Your task to perform on an android device: set default search engine in the chrome app Image 0: 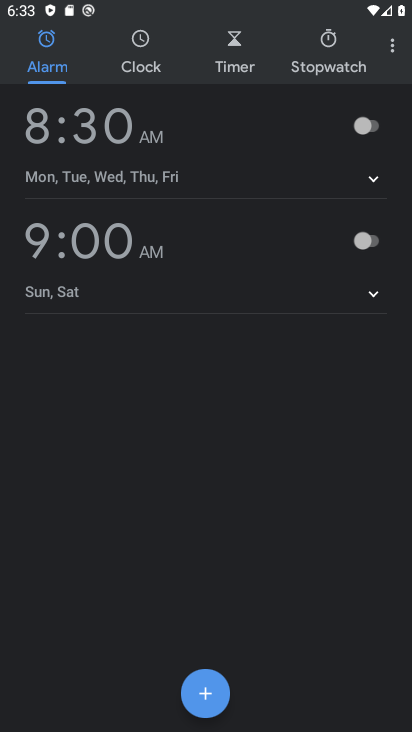
Step 0: press home button
Your task to perform on an android device: set default search engine in the chrome app Image 1: 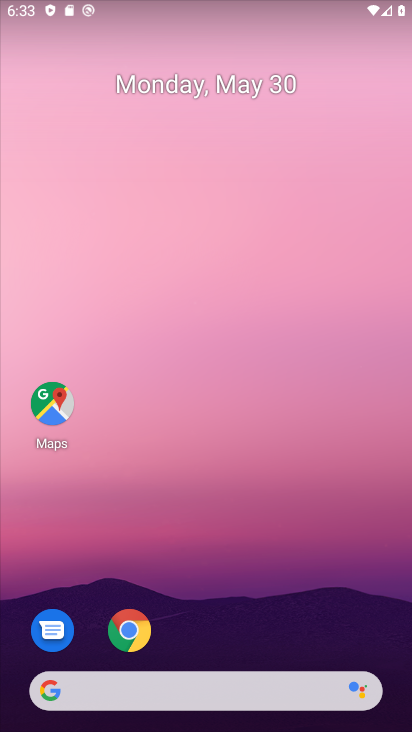
Step 1: drag from (397, 654) to (363, 31)
Your task to perform on an android device: set default search engine in the chrome app Image 2: 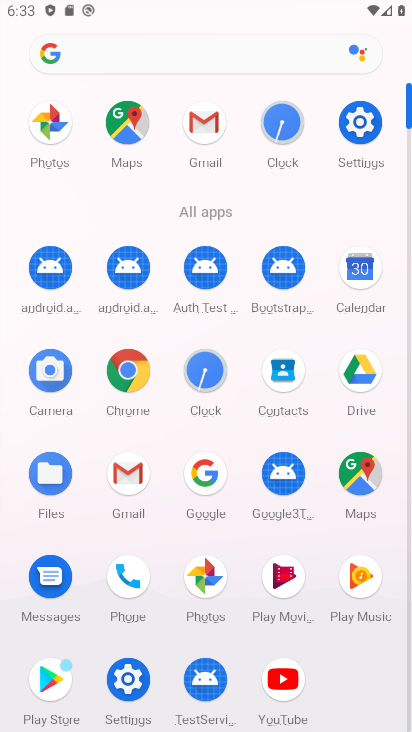
Step 2: click (138, 360)
Your task to perform on an android device: set default search engine in the chrome app Image 3: 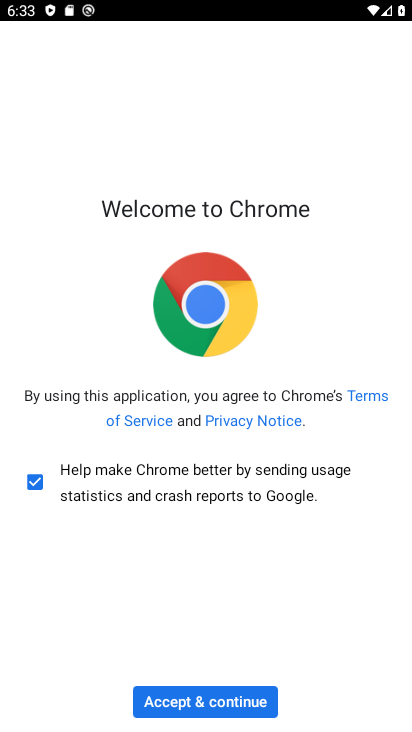
Step 3: click (220, 704)
Your task to perform on an android device: set default search engine in the chrome app Image 4: 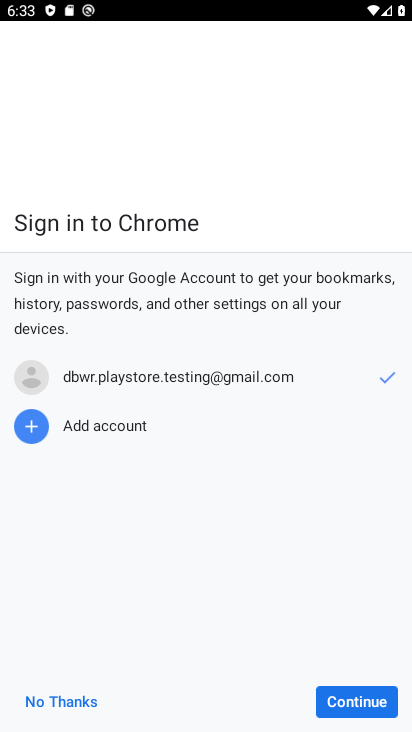
Step 4: click (328, 704)
Your task to perform on an android device: set default search engine in the chrome app Image 5: 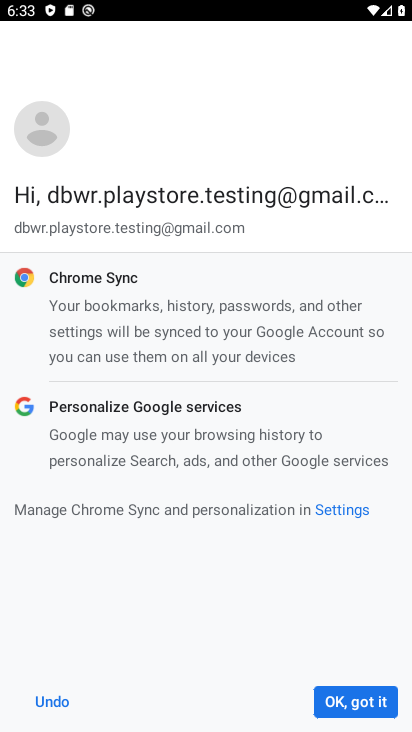
Step 5: click (328, 704)
Your task to perform on an android device: set default search engine in the chrome app Image 6: 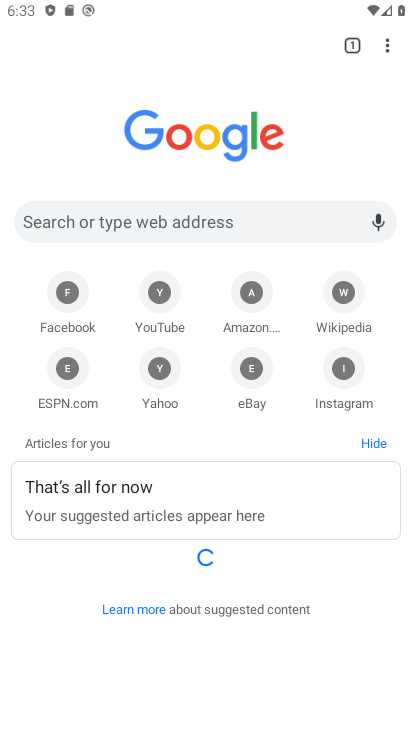
Step 6: click (388, 43)
Your task to perform on an android device: set default search engine in the chrome app Image 7: 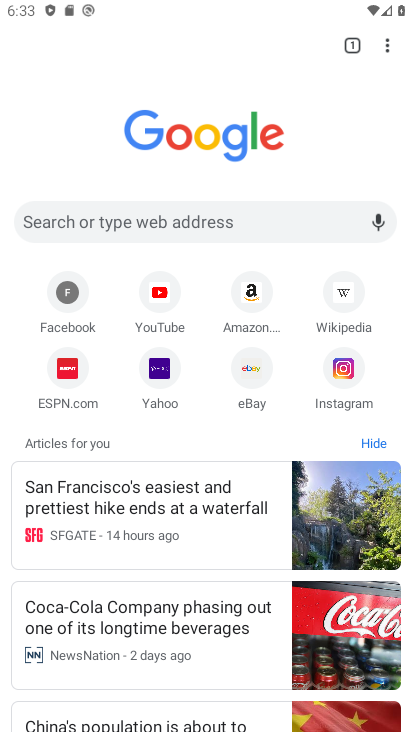
Step 7: click (386, 38)
Your task to perform on an android device: set default search engine in the chrome app Image 8: 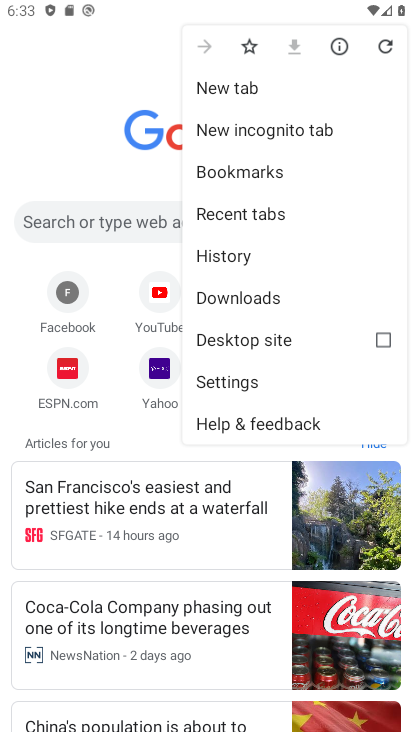
Step 8: click (263, 383)
Your task to perform on an android device: set default search engine in the chrome app Image 9: 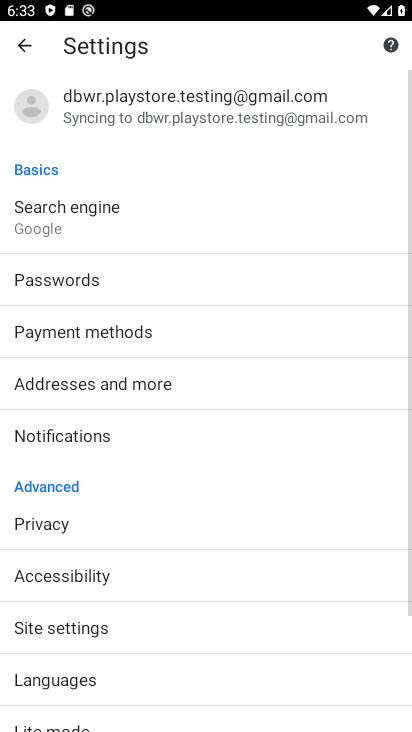
Step 9: click (142, 218)
Your task to perform on an android device: set default search engine in the chrome app Image 10: 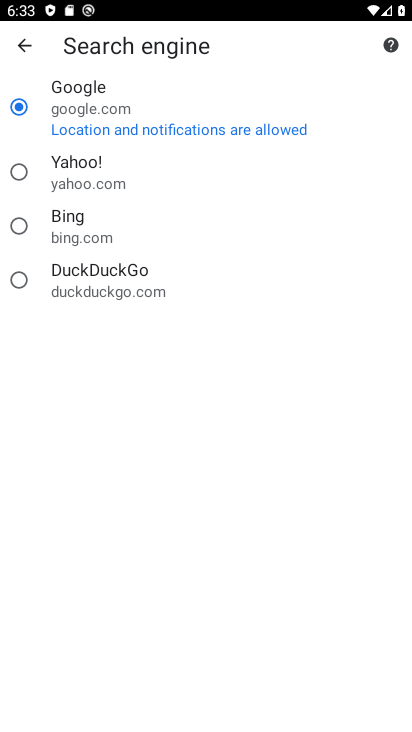
Step 10: click (61, 231)
Your task to perform on an android device: set default search engine in the chrome app Image 11: 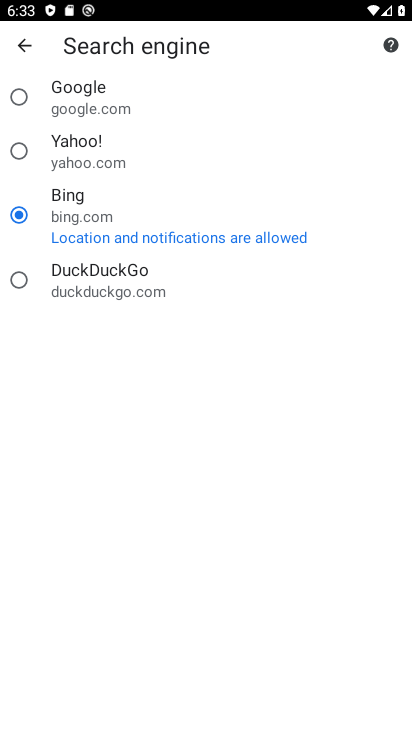
Step 11: task complete